Your task to perform on an android device: Add macbook pro 15 inch to the cart on walmart Image 0: 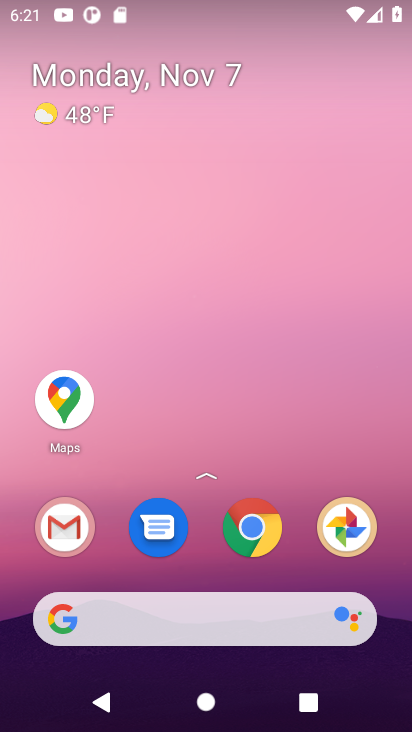
Step 0: click (259, 540)
Your task to perform on an android device: Add macbook pro 15 inch to the cart on walmart Image 1: 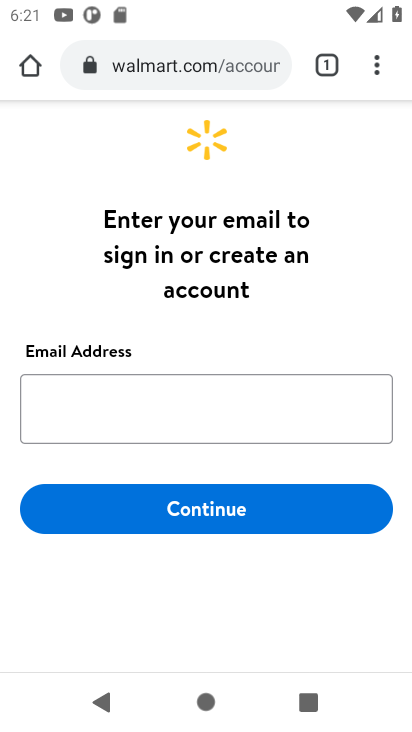
Step 1: click (148, 67)
Your task to perform on an android device: Add macbook pro 15 inch to the cart on walmart Image 2: 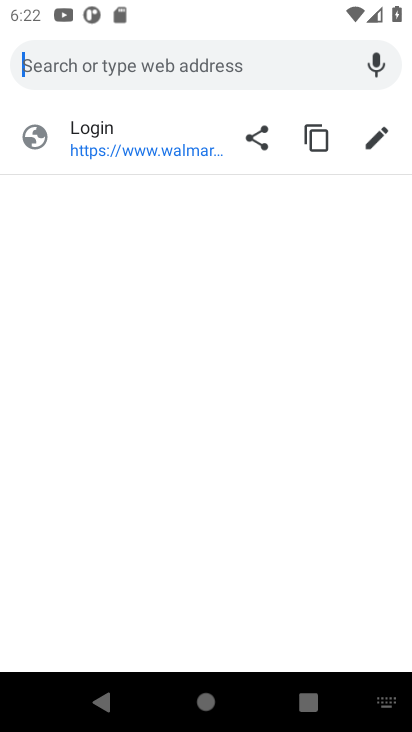
Step 2: type "walmart"
Your task to perform on an android device: Add macbook pro 15 inch to the cart on walmart Image 3: 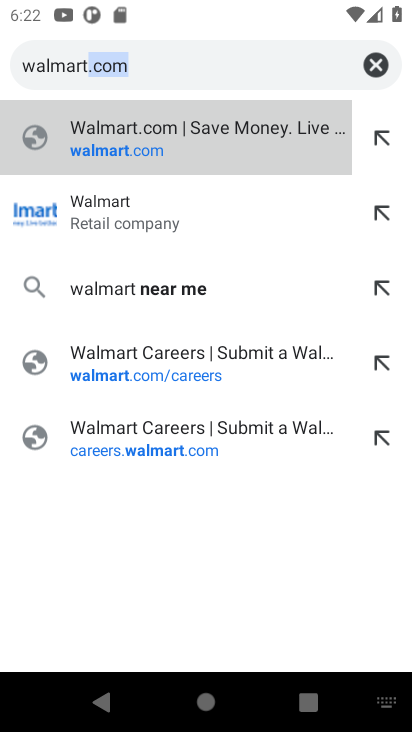
Step 3: click (189, 157)
Your task to perform on an android device: Add macbook pro 15 inch to the cart on walmart Image 4: 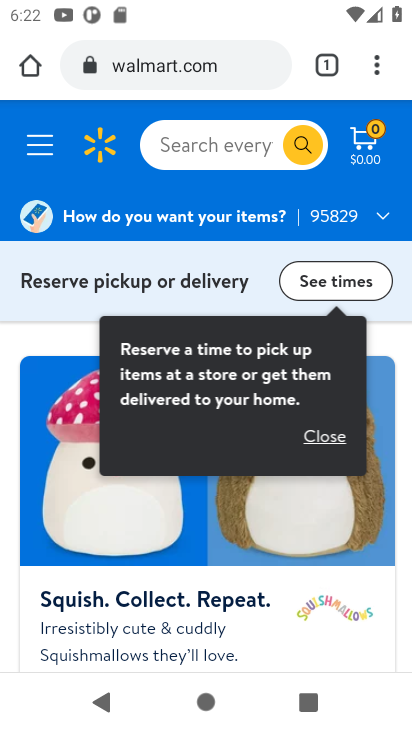
Step 4: click (231, 155)
Your task to perform on an android device: Add macbook pro 15 inch to the cart on walmart Image 5: 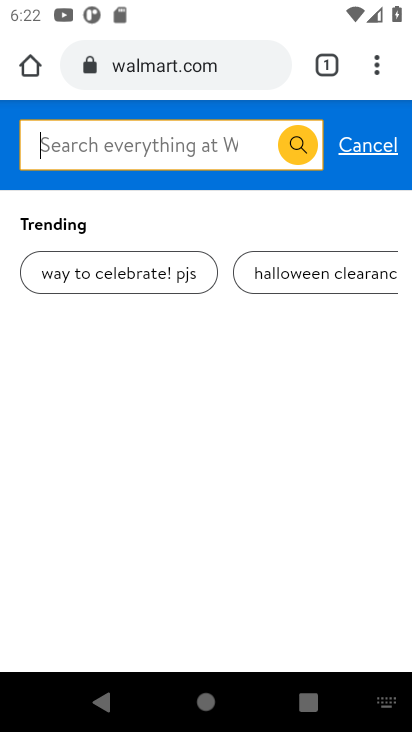
Step 5: type "macbook pro 15 inch"
Your task to perform on an android device: Add macbook pro 15 inch to the cart on walmart Image 6: 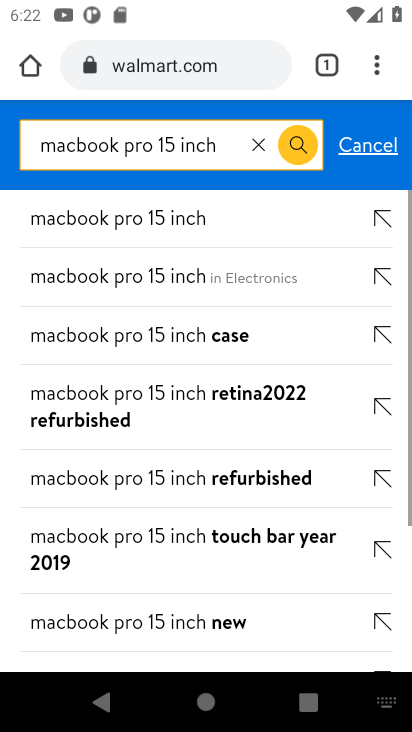
Step 6: press enter
Your task to perform on an android device: Add macbook pro 15 inch to the cart on walmart Image 7: 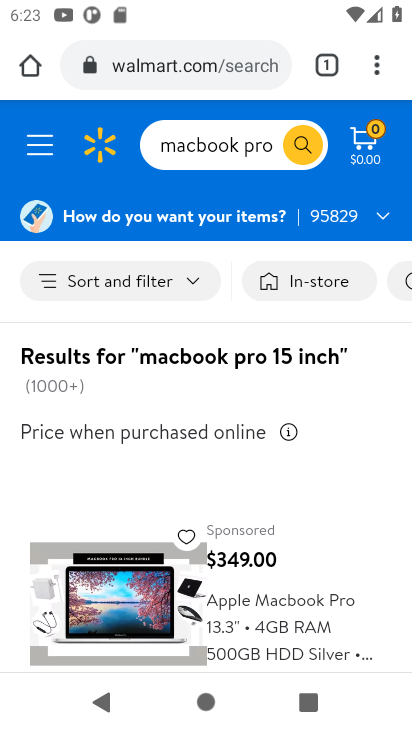
Step 7: drag from (234, 635) to (154, 278)
Your task to perform on an android device: Add macbook pro 15 inch to the cart on walmart Image 8: 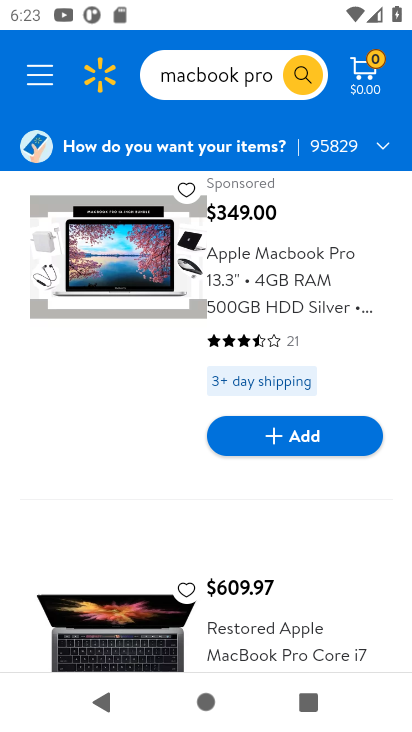
Step 8: drag from (204, 632) to (124, 307)
Your task to perform on an android device: Add macbook pro 15 inch to the cart on walmart Image 9: 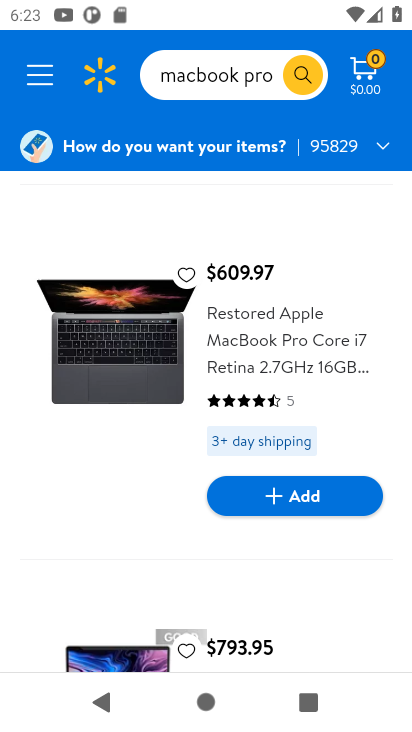
Step 9: drag from (199, 310) to (146, 661)
Your task to perform on an android device: Add macbook pro 15 inch to the cart on walmart Image 10: 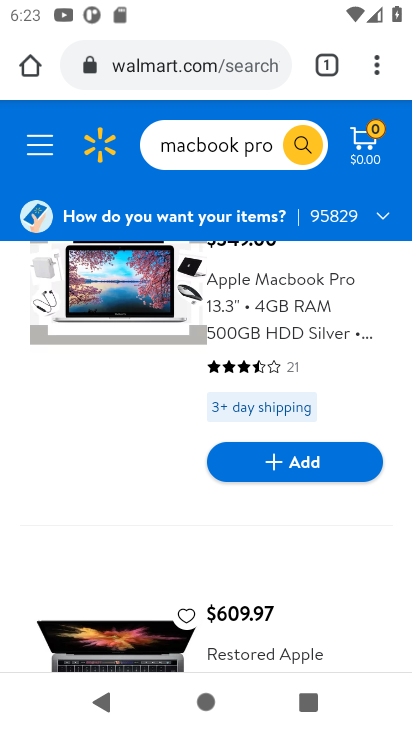
Step 10: click (101, 339)
Your task to perform on an android device: Add macbook pro 15 inch to the cart on walmart Image 11: 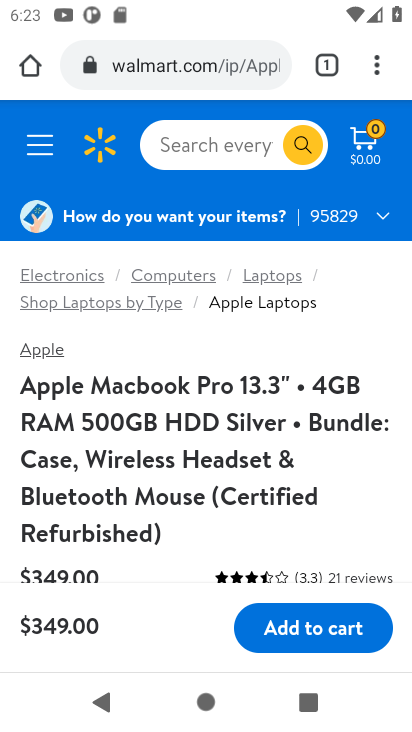
Step 11: click (334, 630)
Your task to perform on an android device: Add macbook pro 15 inch to the cart on walmart Image 12: 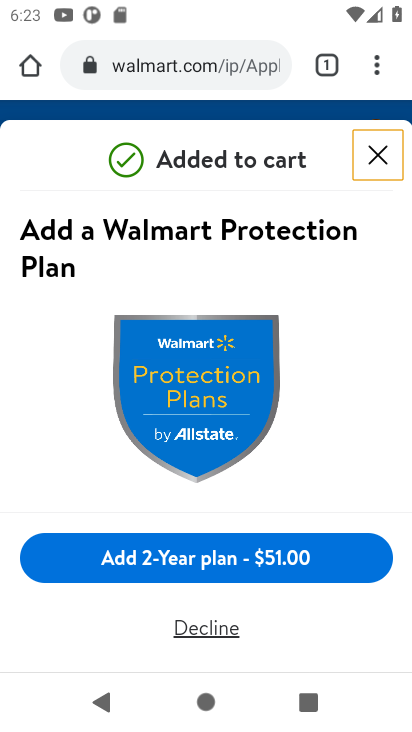
Step 12: click (373, 171)
Your task to perform on an android device: Add macbook pro 15 inch to the cart on walmart Image 13: 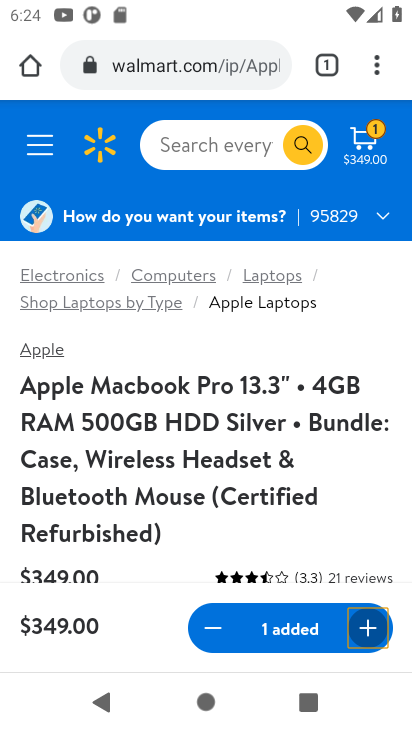
Step 13: task complete